Your task to perform on an android device: turn on wifi Image 0: 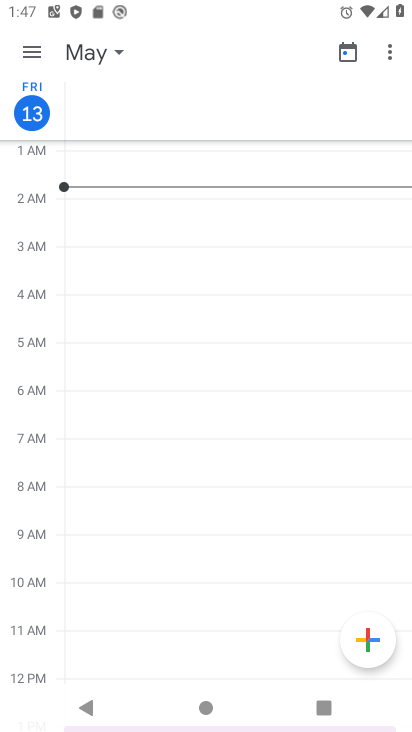
Step 0: press home button
Your task to perform on an android device: turn on wifi Image 1: 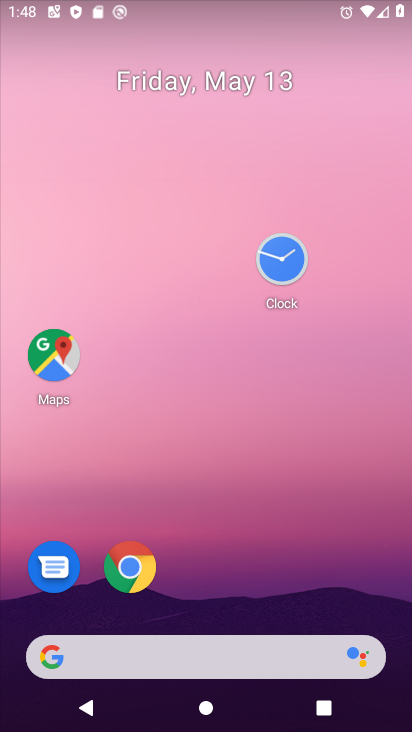
Step 1: drag from (250, 580) to (366, 76)
Your task to perform on an android device: turn on wifi Image 2: 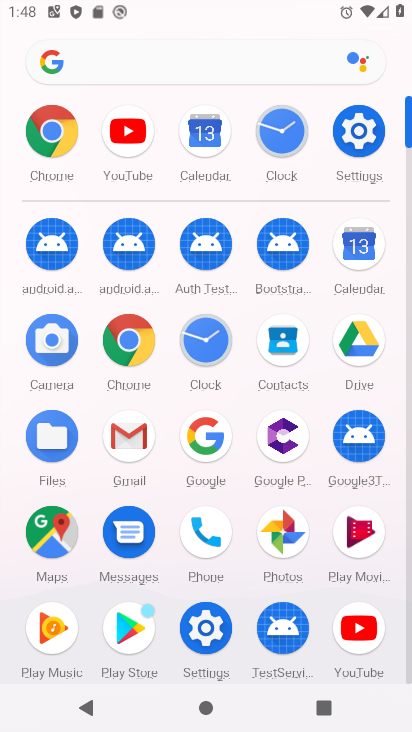
Step 2: click (340, 131)
Your task to perform on an android device: turn on wifi Image 3: 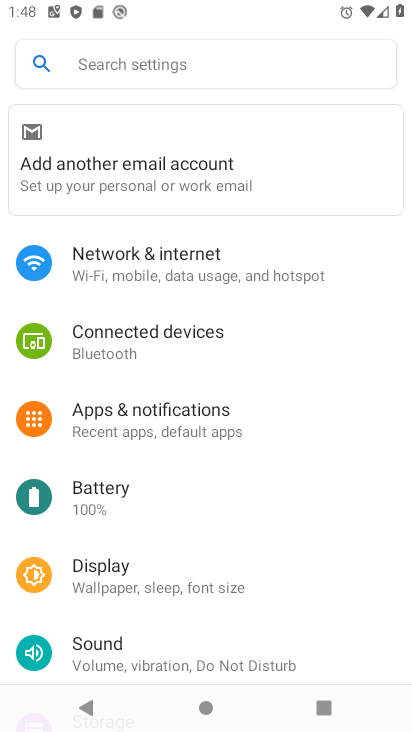
Step 3: click (176, 239)
Your task to perform on an android device: turn on wifi Image 4: 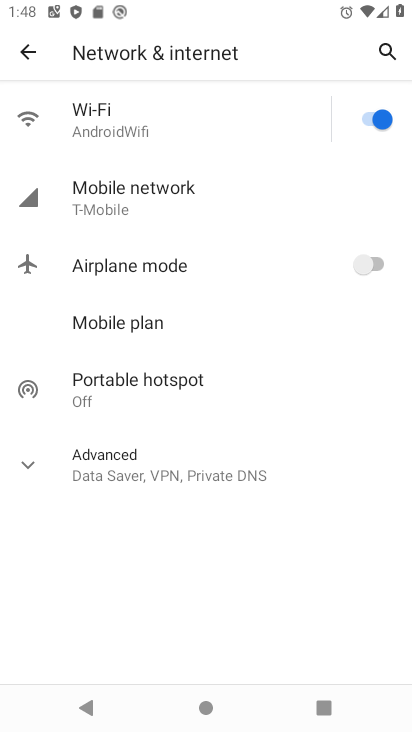
Step 4: task complete